Your task to perform on an android device: Check the weather Image 0: 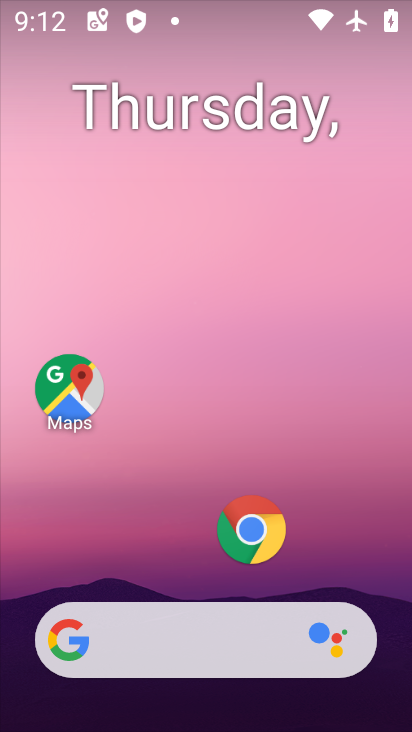
Step 0: drag from (15, 259) to (409, 279)
Your task to perform on an android device: Check the weather Image 1: 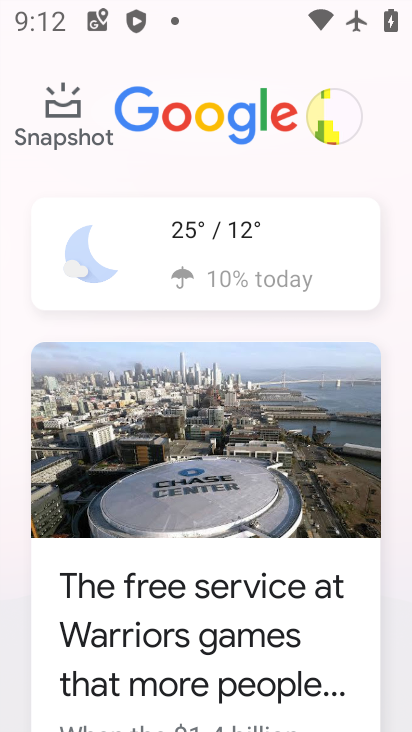
Step 1: click (228, 236)
Your task to perform on an android device: Check the weather Image 2: 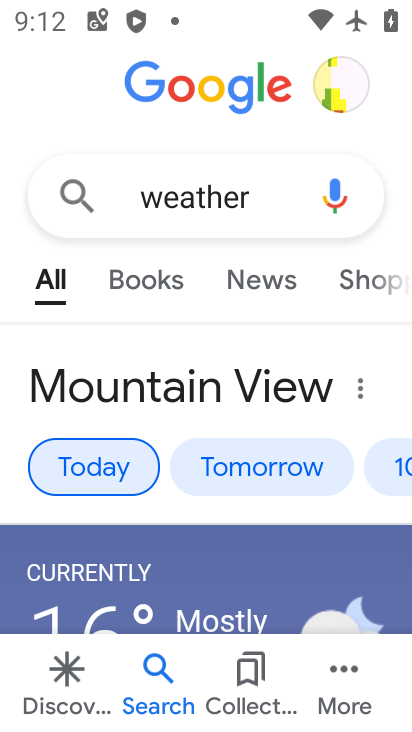
Step 2: task complete